Your task to perform on an android device: check the backup settings in the google photos Image 0: 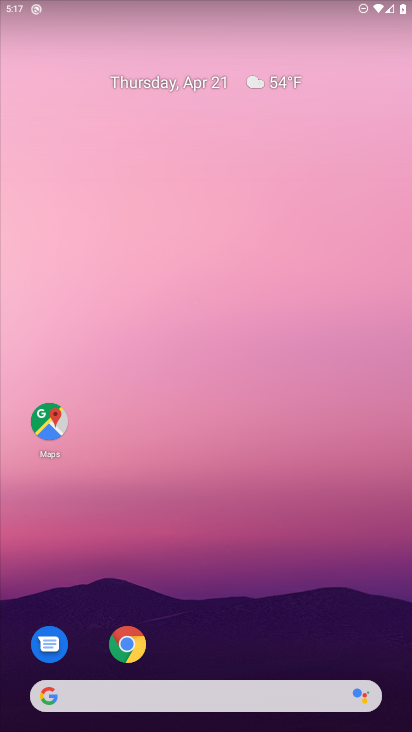
Step 0: drag from (203, 680) to (209, 331)
Your task to perform on an android device: check the backup settings in the google photos Image 1: 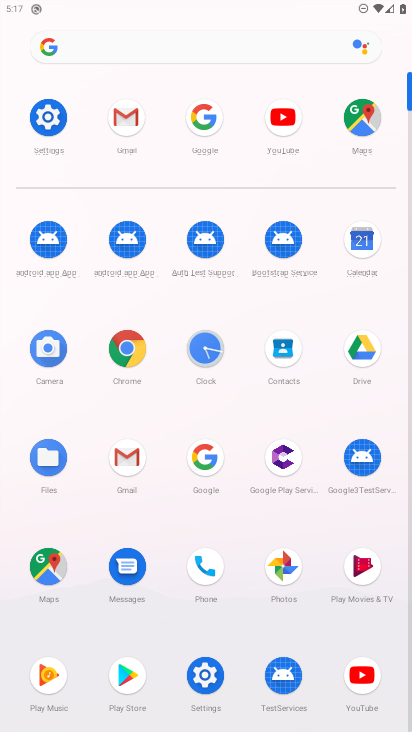
Step 1: click (280, 566)
Your task to perform on an android device: check the backup settings in the google photos Image 2: 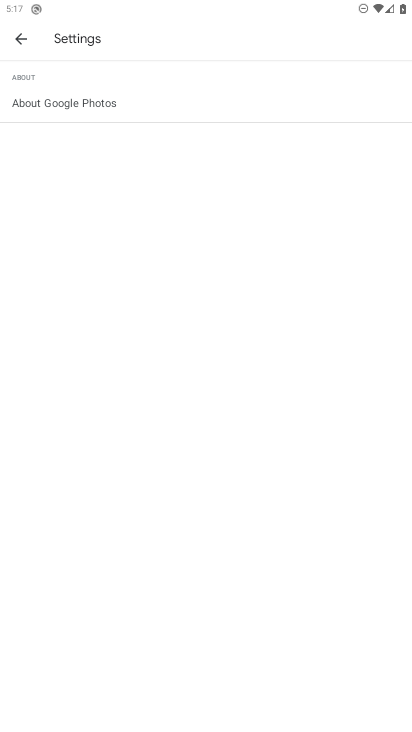
Step 2: click (18, 41)
Your task to perform on an android device: check the backup settings in the google photos Image 3: 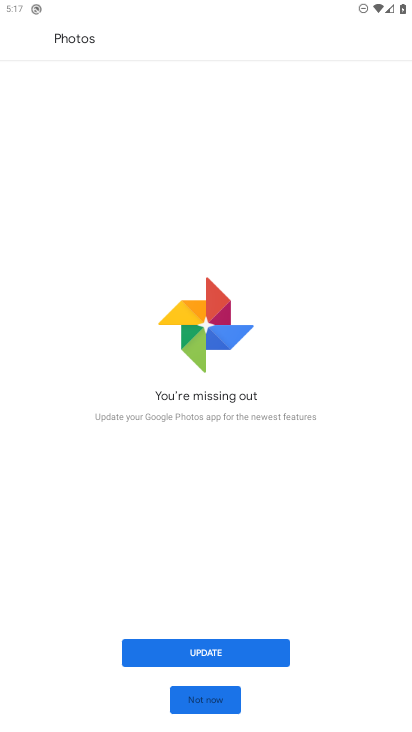
Step 3: click (208, 705)
Your task to perform on an android device: check the backup settings in the google photos Image 4: 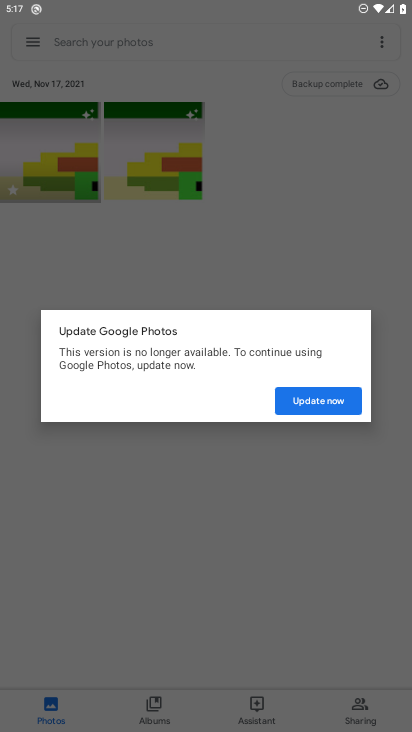
Step 4: click (315, 397)
Your task to perform on an android device: check the backup settings in the google photos Image 5: 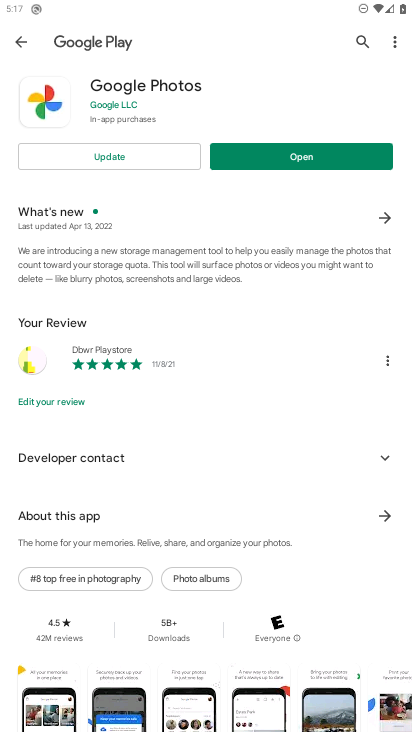
Step 5: click (135, 162)
Your task to perform on an android device: check the backup settings in the google photos Image 6: 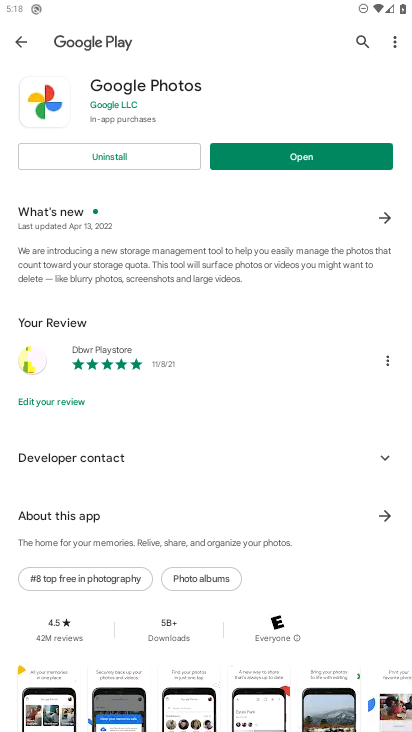
Step 6: click (270, 152)
Your task to perform on an android device: check the backup settings in the google photos Image 7: 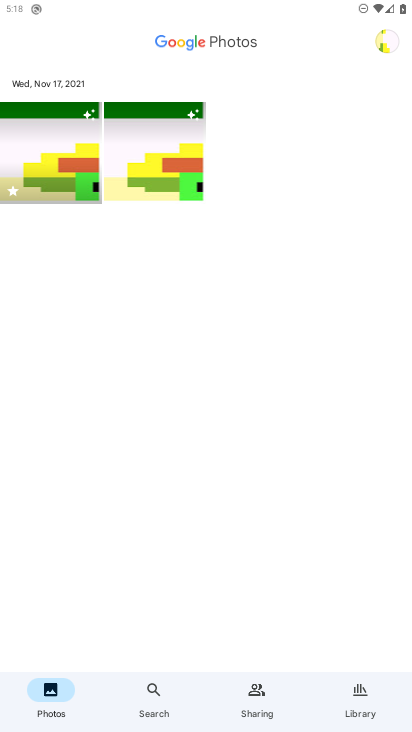
Step 7: click (13, 48)
Your task to perform on an android device: check the backup settings in the google photos Image 8: 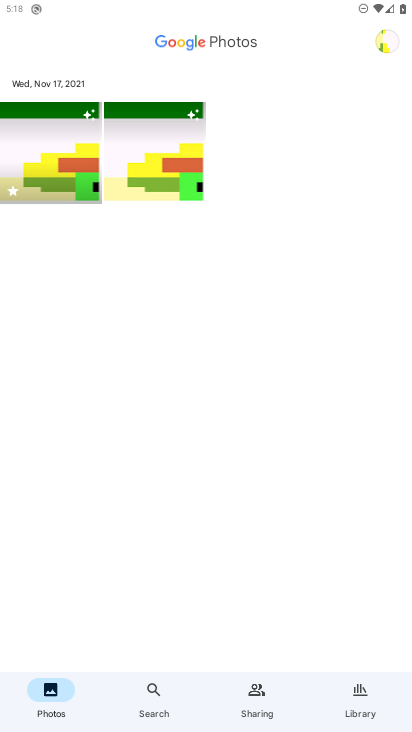
Step 8: click (21, 49)
Your task to perform on an android device: check the backup settings in the google photos Image 9: 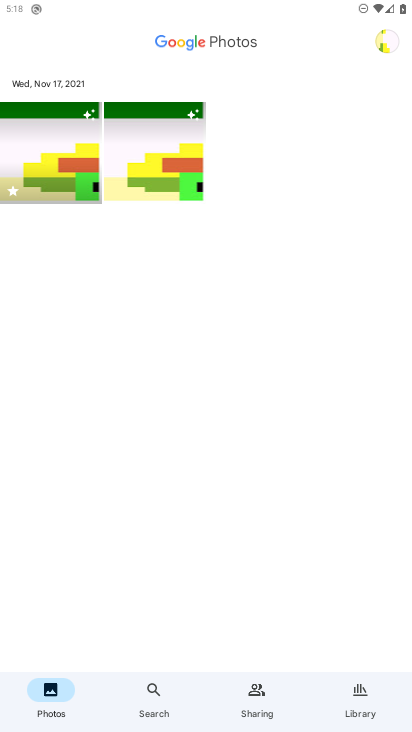
Step 9: click (362, 691)
Your task to perform on an android device: check the backup settings in the google photos Image 10: 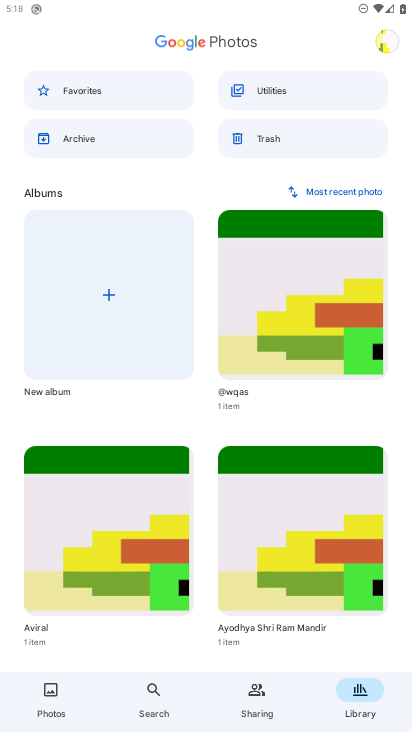
Step 10: click (386, 44)
Your task to perform on an android device: check the backup settings in the google photos Image 11: 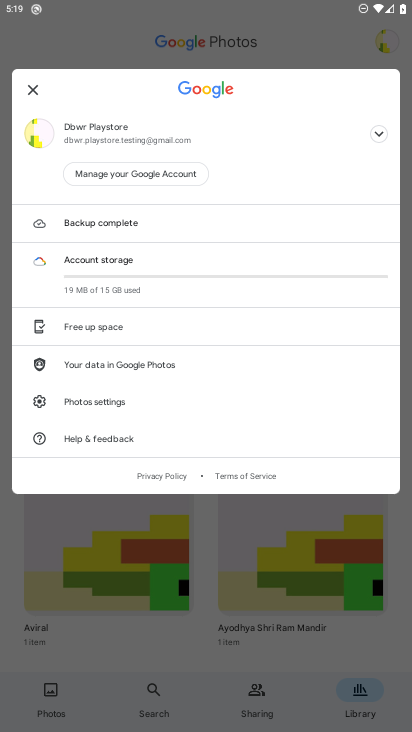
Step 11: click (107, 407)
Your task to perform on an android device: check the backup settings in the google photos Image 12: 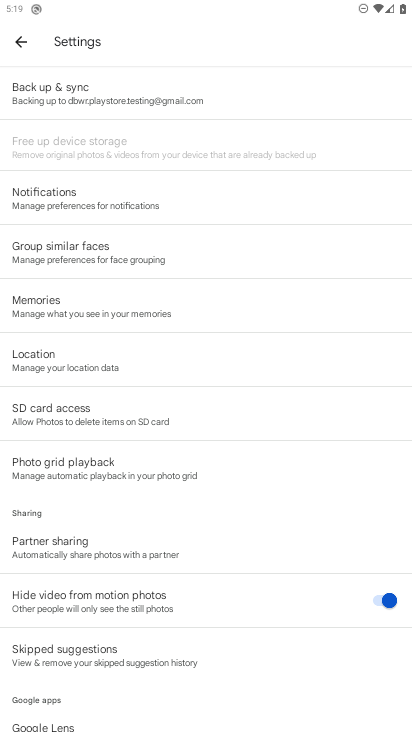
Step 12: click (54, 95)
Your task to perform on an android device: check the backup settings in the google photos Image 13: 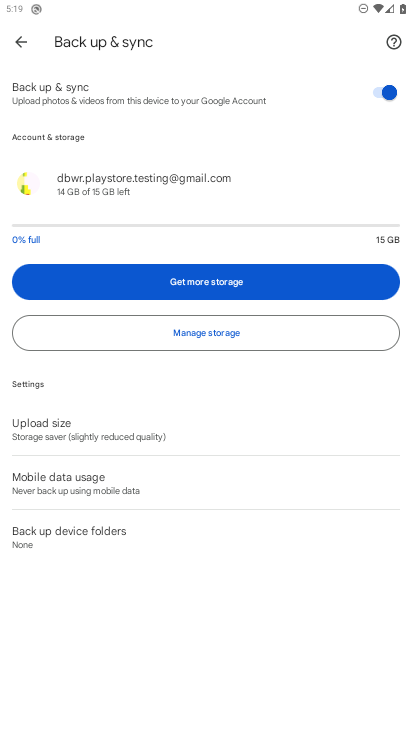
Step 13: task complete